Your task to perform on an android device: find which apps use the phone's location Image 0: 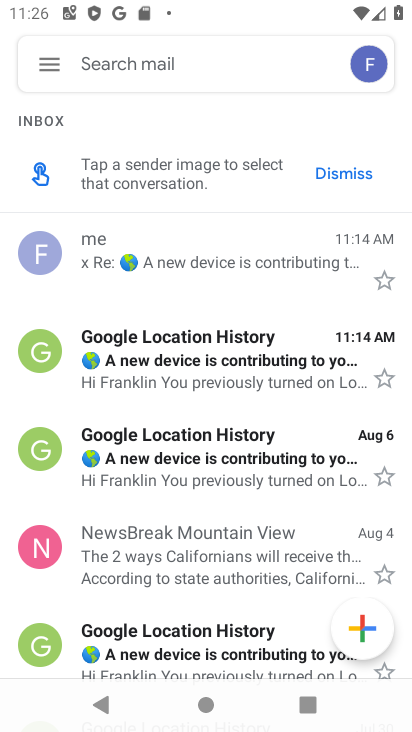
Step 0: press back button
Your task to perform on an android device: find which apps use the phone's location Image 1: 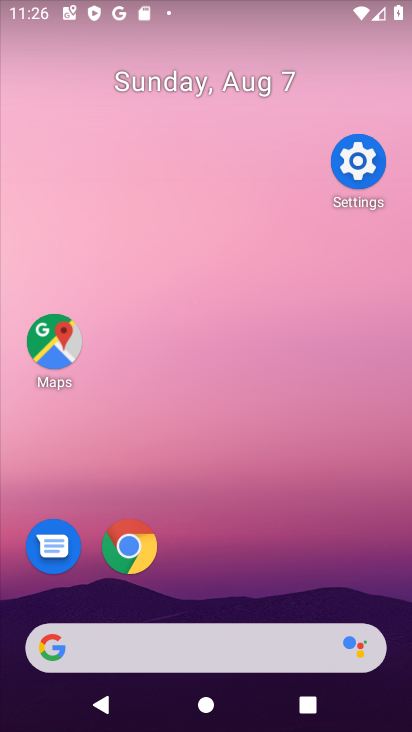
Step 1: drag from (292, 623) to (292, 208)
Your task to perform on an android device: find which apps use the phone's location Image 2: 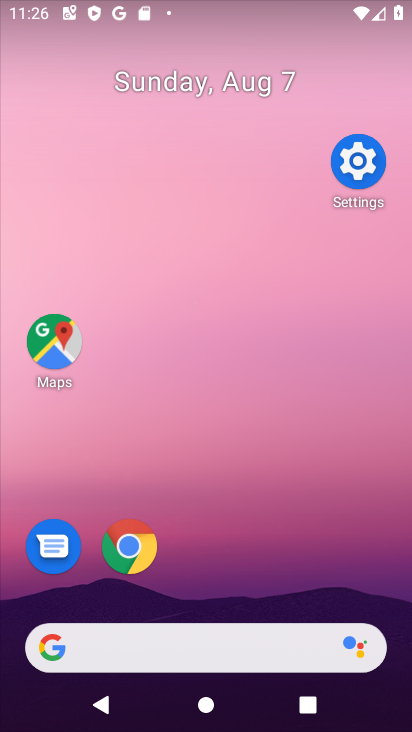
Step 2: drag from (231, 495) to (242, 158)
Your task to perform on an android device: find which apps use the phone's location Image 3: 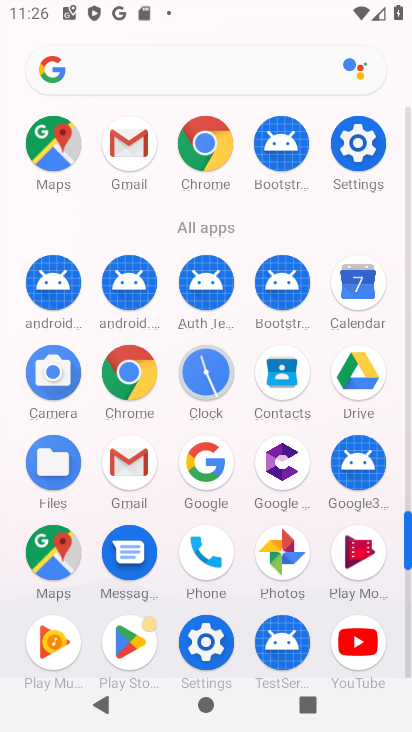
Step 3: click (348, 154)
Your task to perform on an android device: find which apps use the phone's location Image 4: 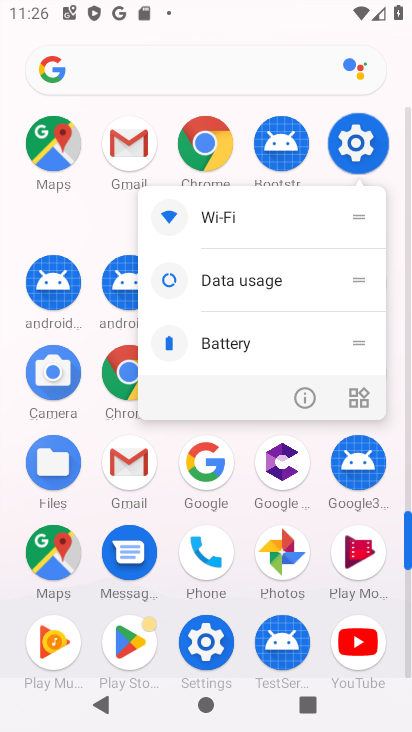
Step 4: click (361, 163)
Your task to perform on an android device: find which apps use the phone's location Image 5: 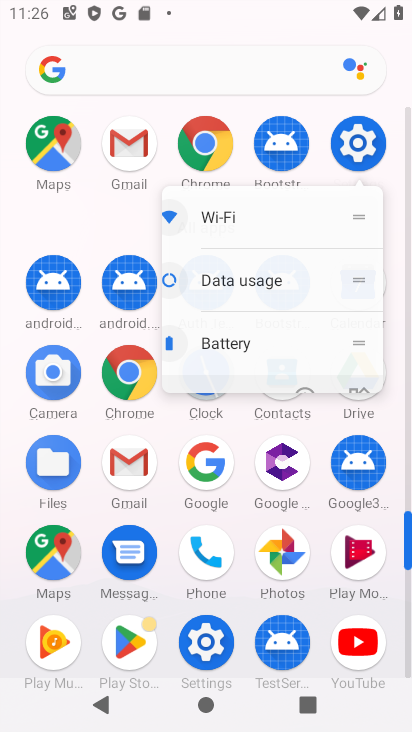
Step 5: click (361, 163)
Your task to perform on an android device: find which apps use the phone's location Image 6: 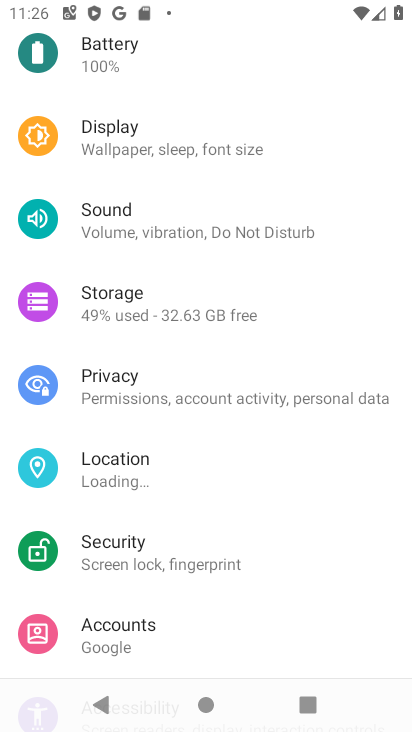
Step 6: click (117, 475)
Your task to perform on an android device: find which apps use the phone's location Image 7: 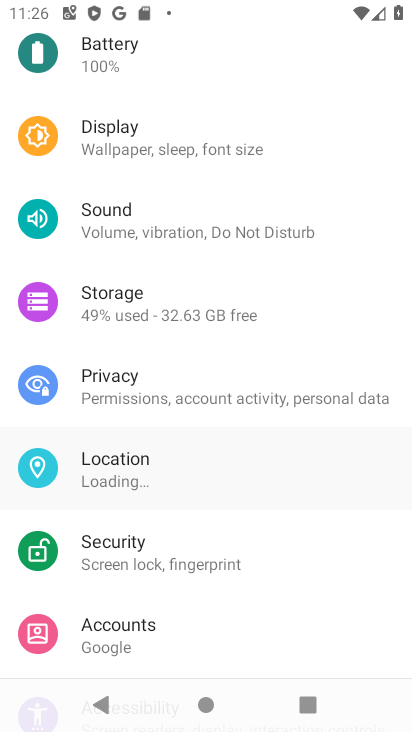
Step 7: click (117, 475)
Your task to perform on an android device: find which apps use the phone's location Image 8: 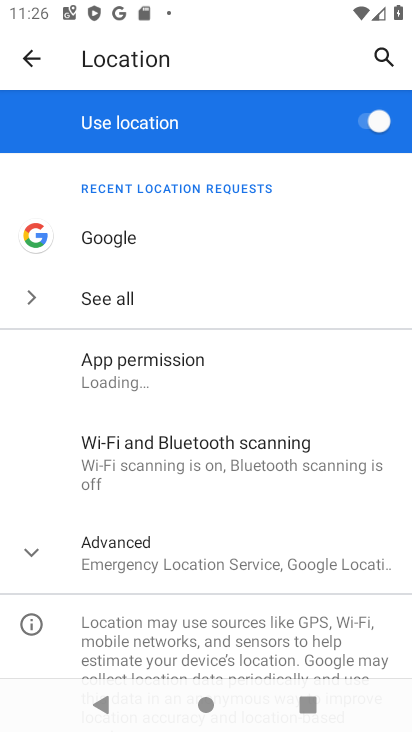
Step 8: click (122, 367)
Your task to perform on an android device: find which apps use the phone's location Image 9: 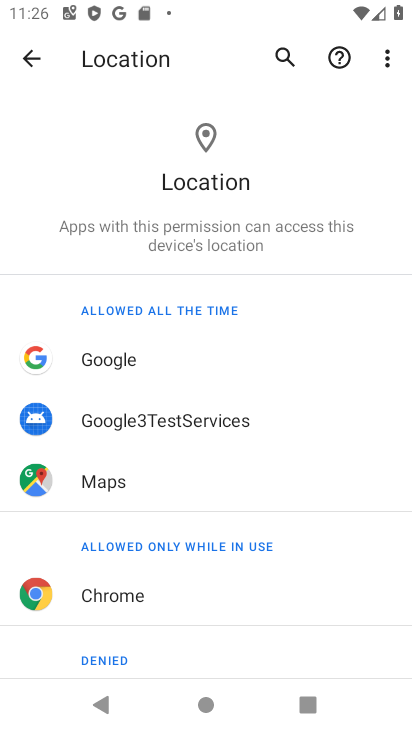
Step 9: task complete